Your task to perform on an android device: see creations saved in the google photos Image 0: 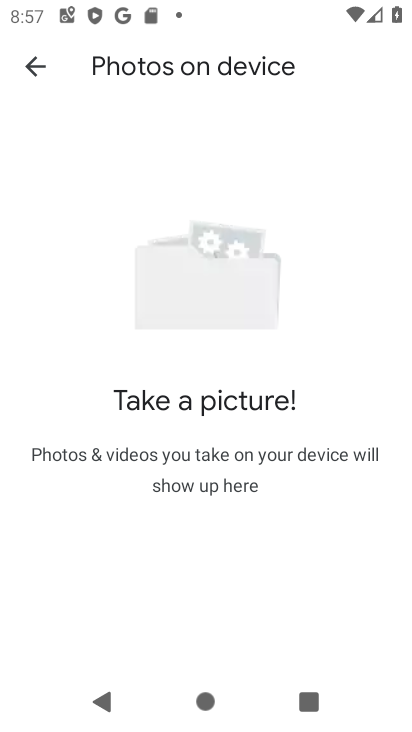
Step 0: press home button
Your task to perform on an android device: see creations saved in the google photos Image 1: 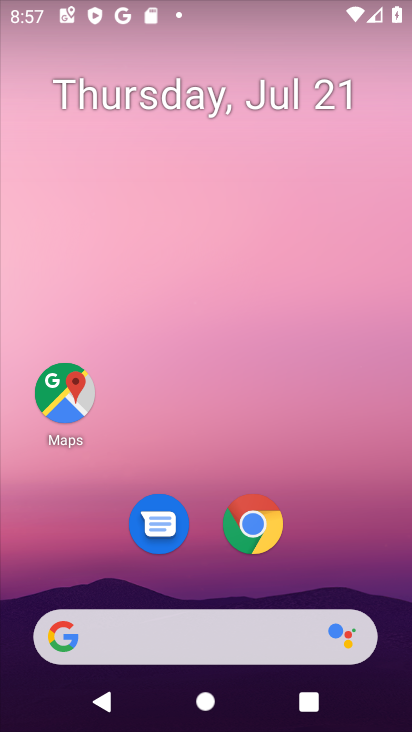
Step 1: drag from (165, 642) to (318, 78)
Your task to perform on an android device: see creations saved in the google photos Image 2: 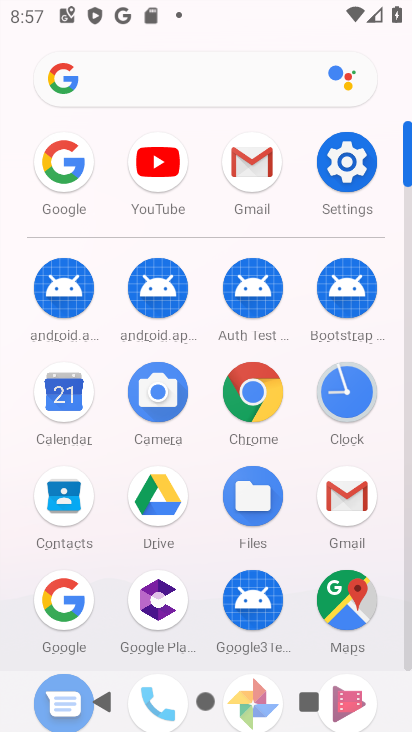
Step 2: drag from (208, 580) to (348, 205)
Your task to perform on an android device: see creations saved in the google photos Image 3: 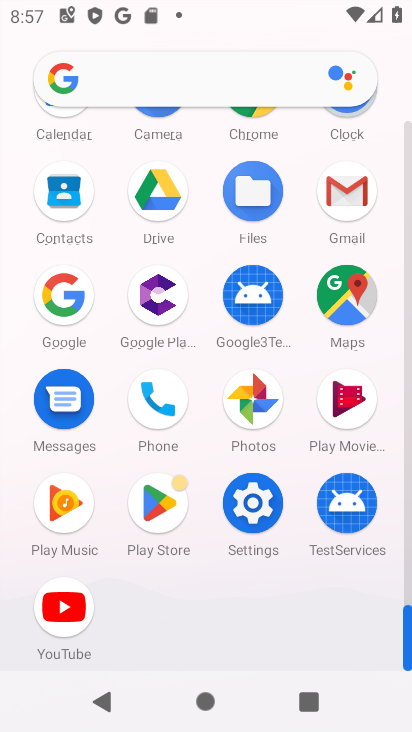
Step 3: click (255, 405)
Your task to perform on an android device: see creations saved in the google photos Image 4: 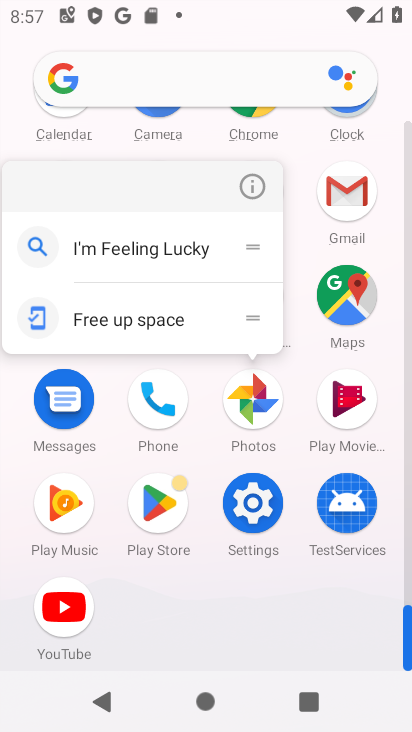
Step 4: click (245, 393)
Your task to perform on an android device: see creations saved in the google photos Image 5: 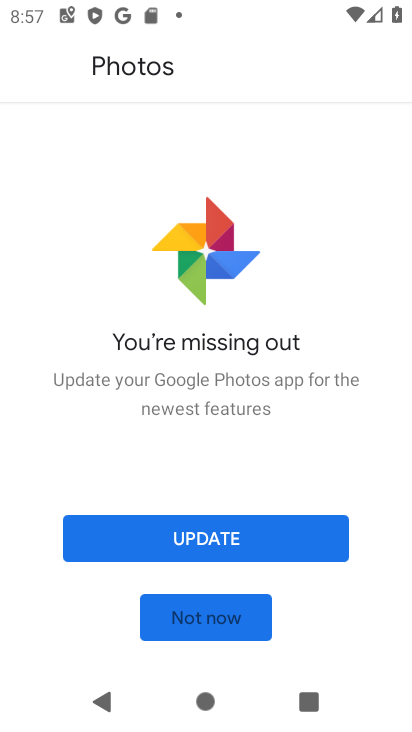
Step 5: click (194, 608)
Your task to perform on an android device: see creations saved in the google photos Image 6: 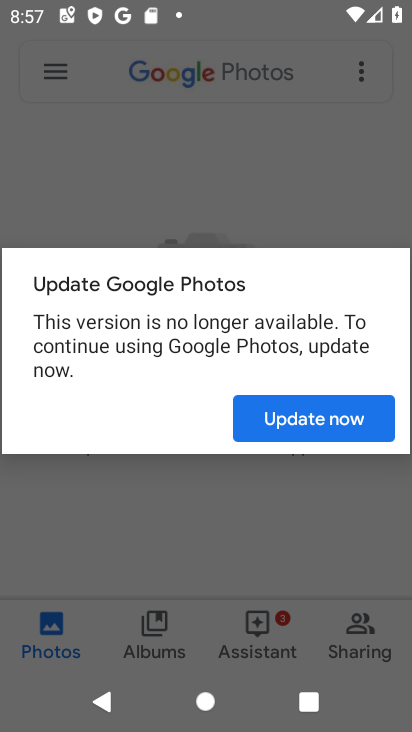
Step 6: click (314, 422)
Your task to perform on an android device: see creations saved in the google photos Image 7: 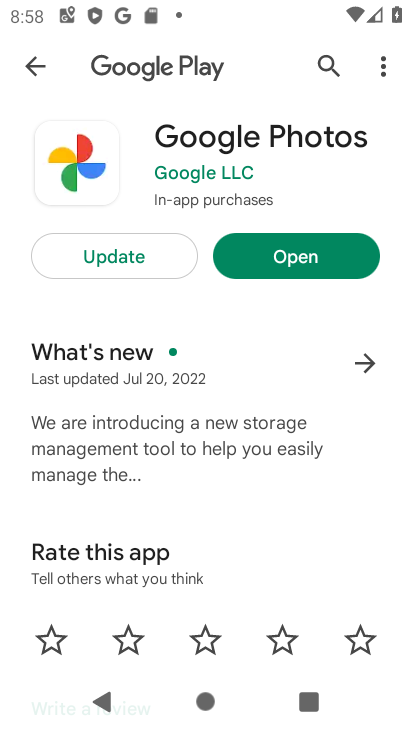
Step 7: click (313, 254)
Your task to perform on an android device: see creations saved in the google photos Image 8: 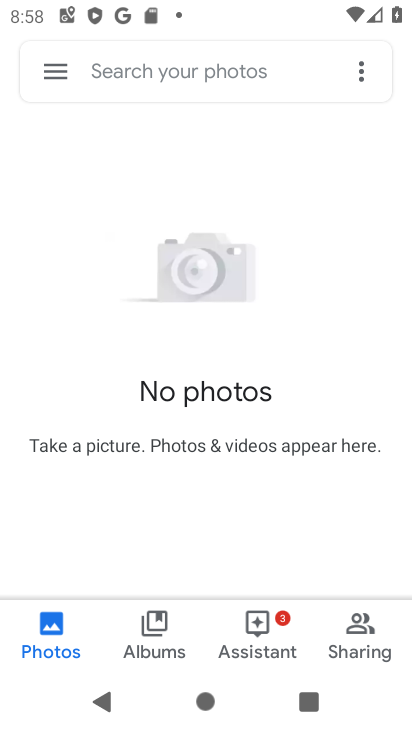
Step 8: click (151, 632)
Your task to perform on an android device: see creations saved in the google photos Image 9: 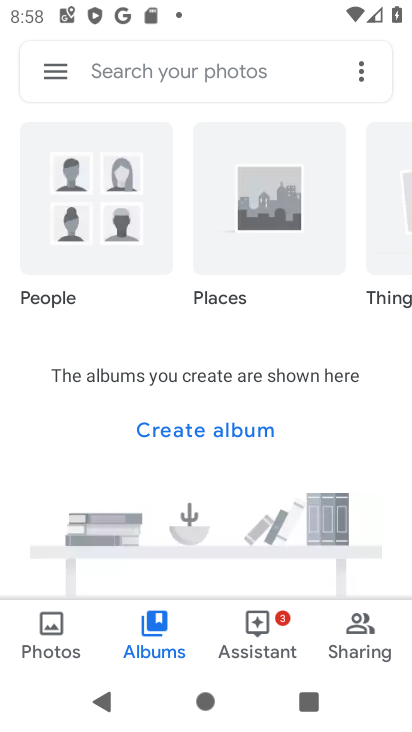
Step 9: click (195, 60)
Your task to perform on an android device: see creations saved in the google photos Image 10: 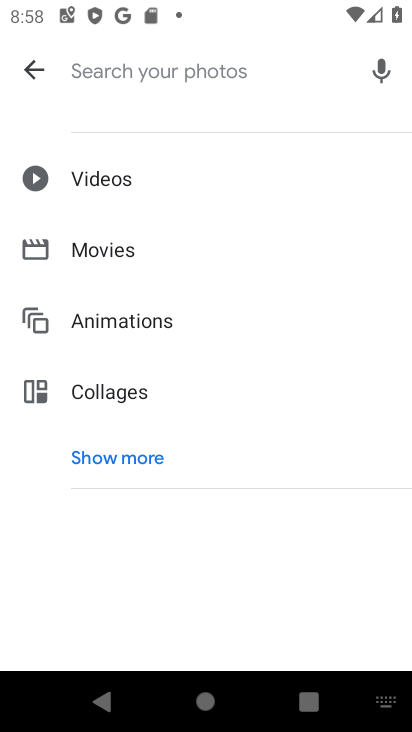
Step 10: click (103, 463)
Your task to perform on an android device: see creations saved in the google photos Image 11: 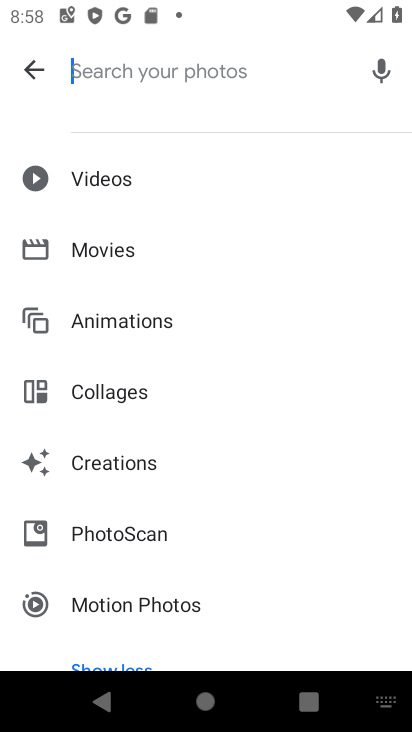
Step 11: click (116, 466)
Your task to perform on an android device: see creations saved in the google photos Image 12: 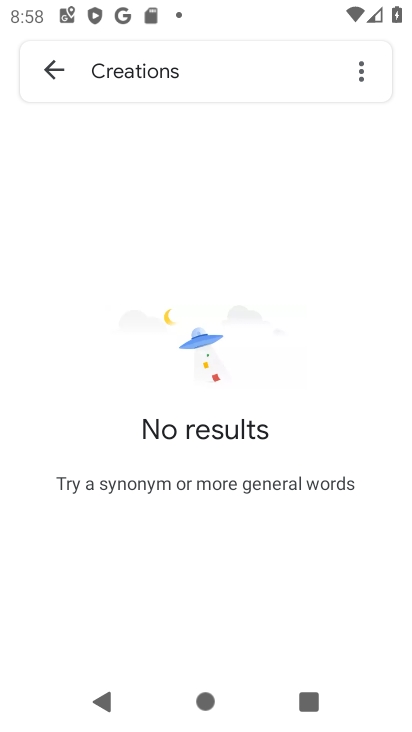
Step 12: task complete